Your task to perform on an android device: turn off smart reply in the gmail app Image 0: 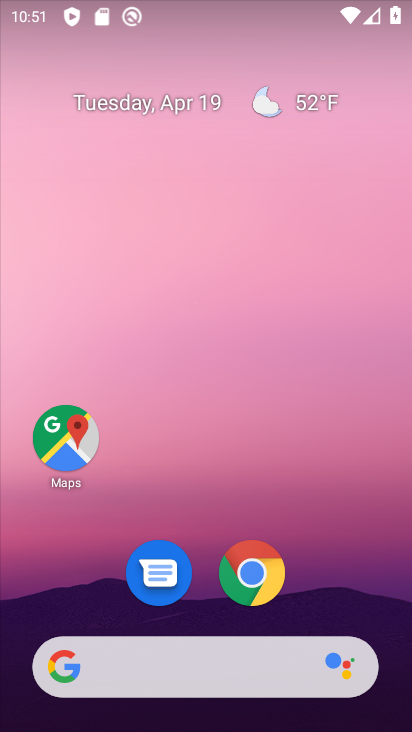
Step 0: drag from (214, 723) to (202, 142)
Your task to perform on an android device: turn off smart reply in the gmail app Image 1: 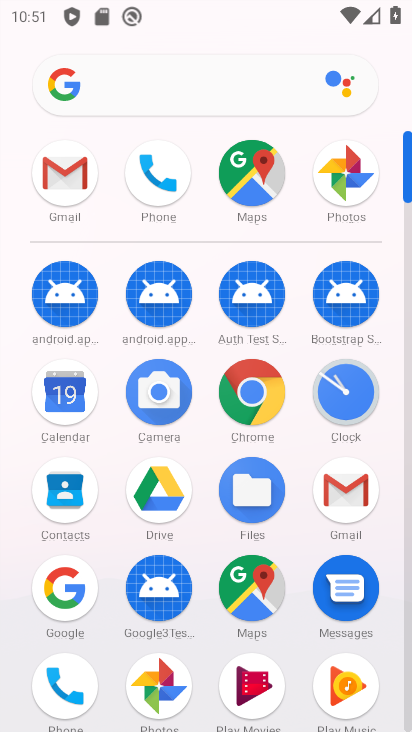
Step 1: click (341, 483)
Your task to perform on an android device: turn off smart reply in the gmail app Image 2: 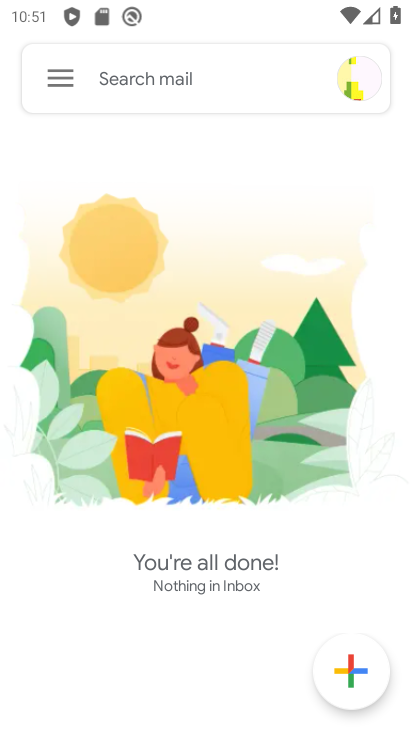
Step 2: click (58, 72)
Your task to perform on an android device: turn off smart reply in the gmail app Image 3: 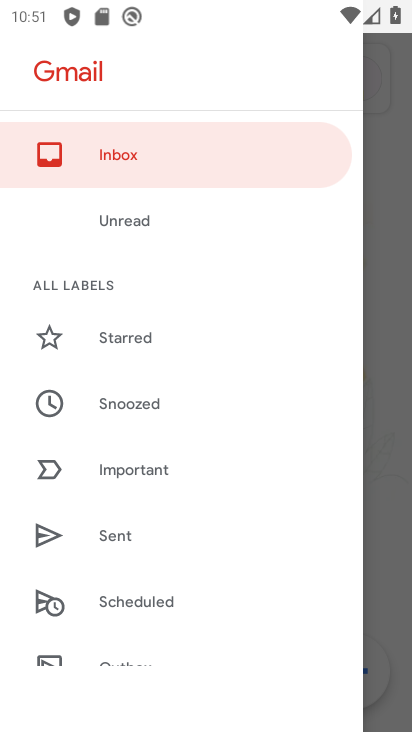
Step 3: drag from (171, 638) to (176, 145)
Your task to perform on an android device: turn off smart reply in the gmail app Image 4: 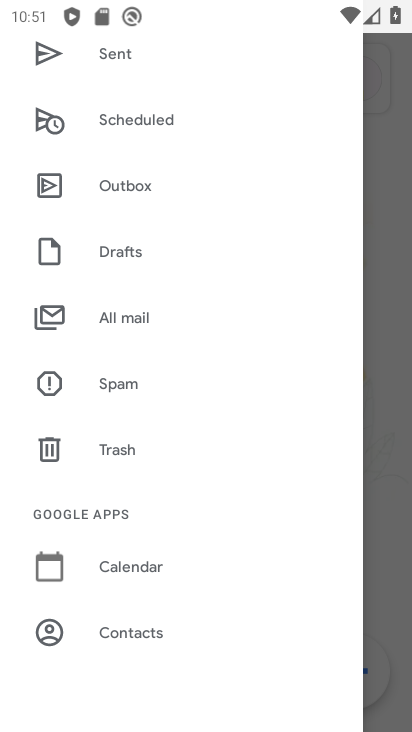
Step 4: drag from (188, 547) to (191, 120)
Your task to perform on an android device: turn off smart reply in the gmail app Image 5: 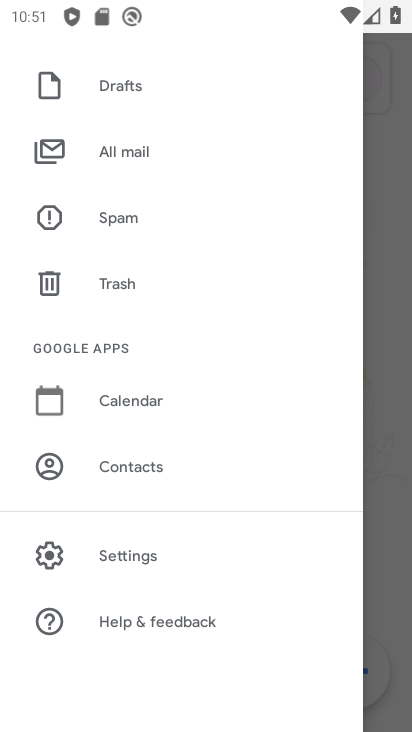
Step 5: click (123, 554)
Your task to perform on an android device: turn off smart reply in the gmail app Image 6: 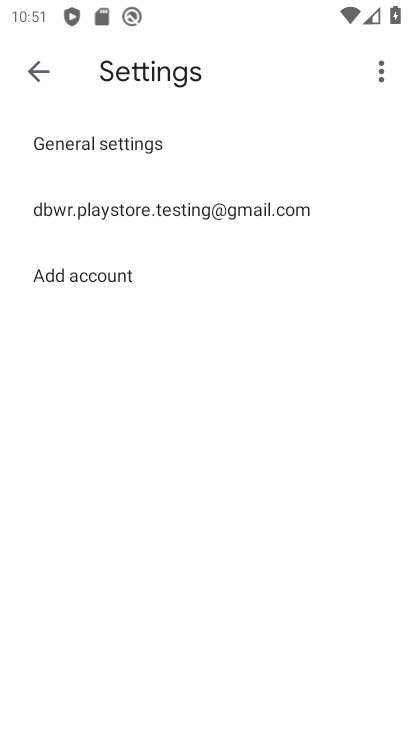
Step 6: click (201, 207)
Your task to perform on an android device: turn off smart reply in the gmail app Image 7: 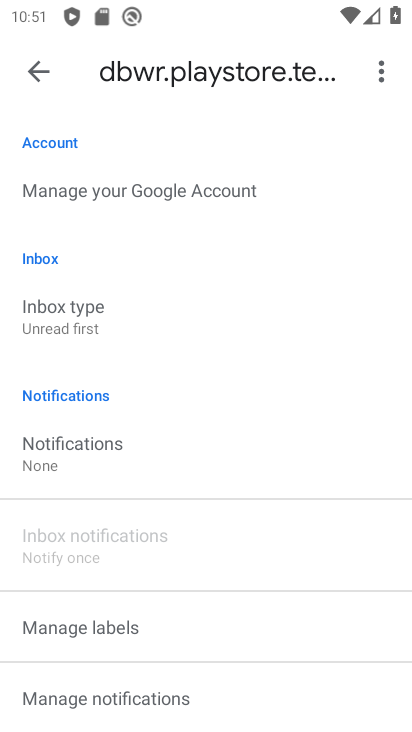
Step 7: drag from (222, 634) to (224, 227)
Your task to perform on an android device: turn off smart reply in the gmail app Image 8: 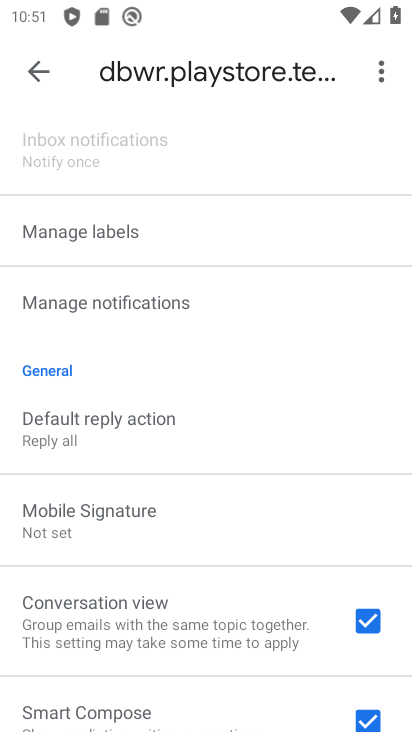
Step 8: drag from (220, 692) to (213, 220)
Your task to perform on an android device: turn off smart reply in the gmail app Image 9: 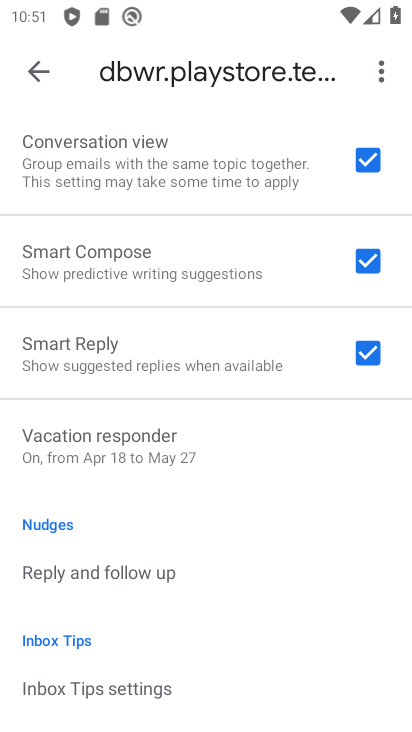
Step 9: click (365, 351)
Your task to perform on an android device: turn off smart reply in the gmail app Image 10: 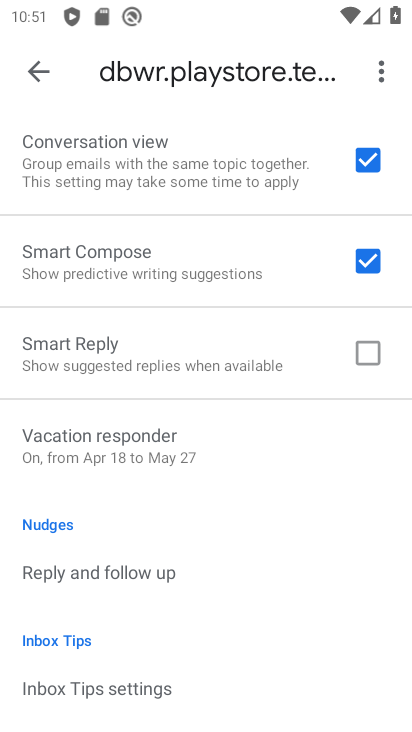
Step 10: task complete